Your task to perform on an android device: Open Google Chrome and click the shortcut for Amazon.com Image 0: 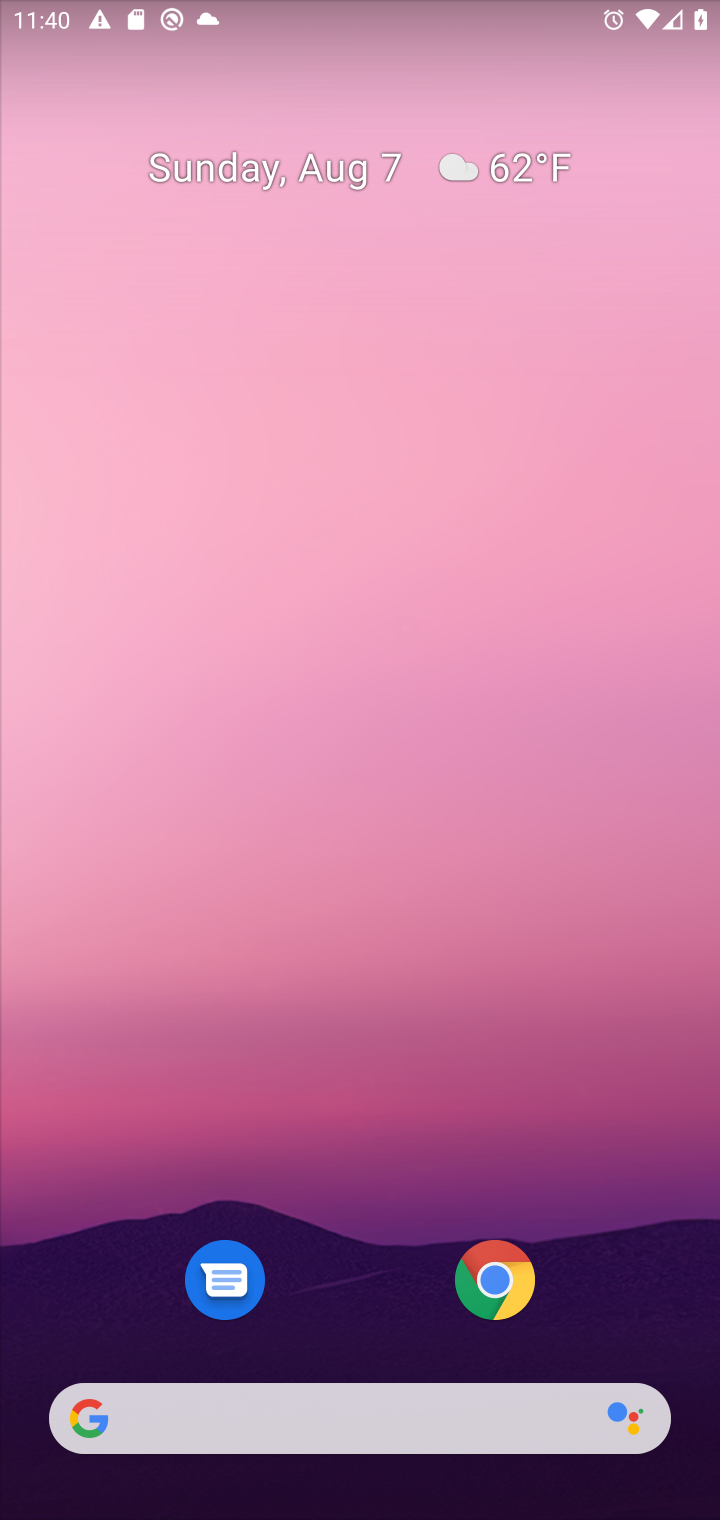
Step 0: click (490, 1270)
Your task to perform on an android device: Open Google Chrome and click the shortcut for Amazon.com Image 1: 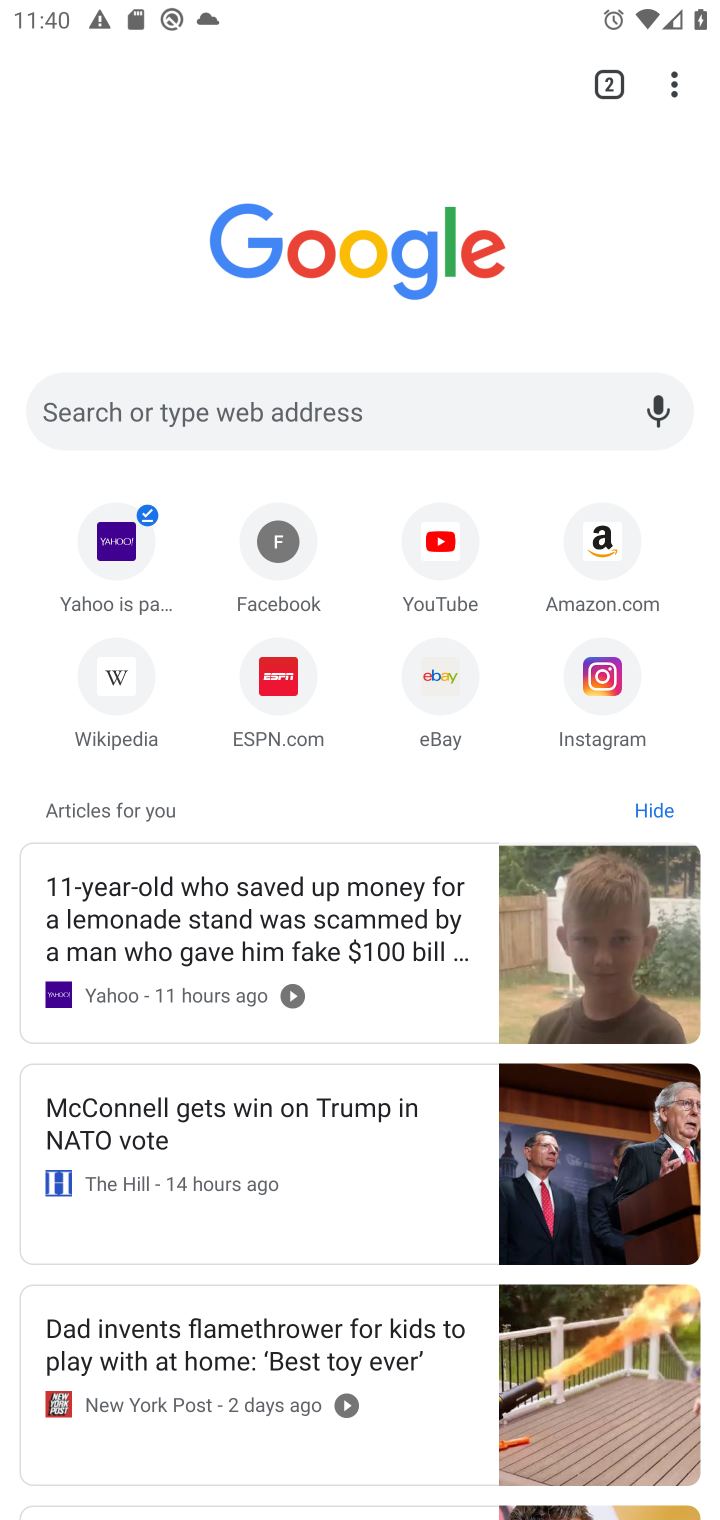
Step 1: click (591, 543)
Your task to perform on an android device: Open Google Chrome and click the shortcut for Amazon.com Image 2: 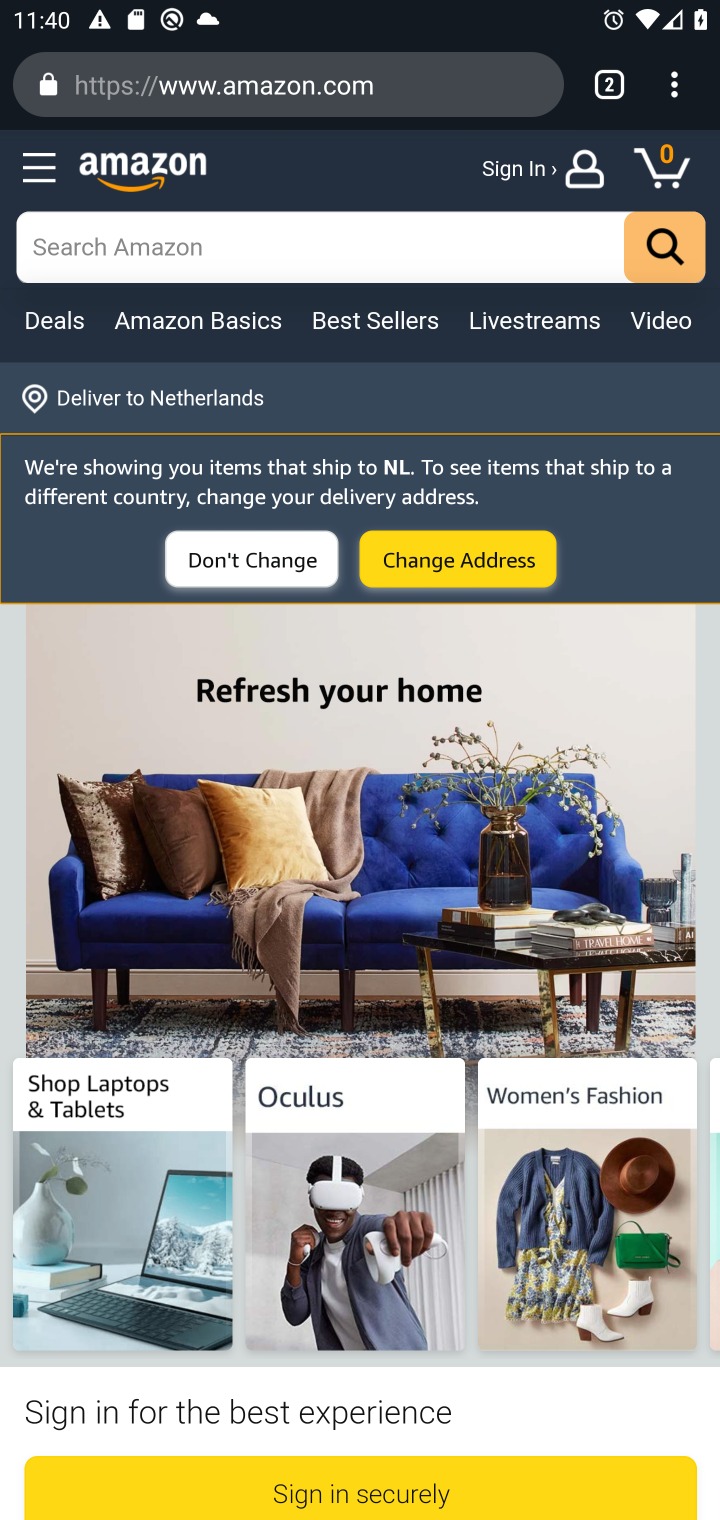
Step 2: task complete